Your task to perform on an android device: Go to Google maps Image 0: 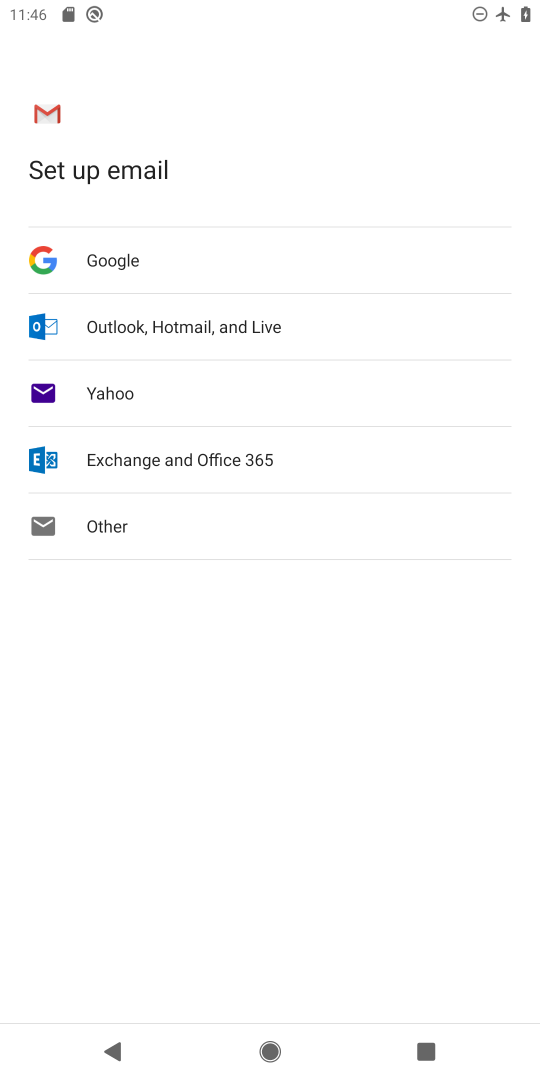
Step 0: press home button
Your task to perform on an android device: Go to Google maps Image 1: 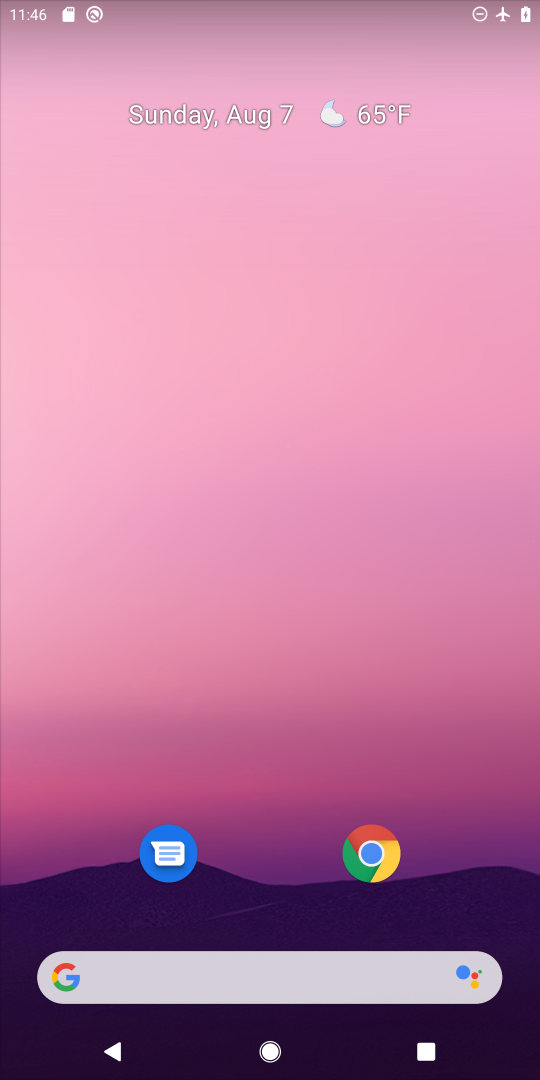
Step 1: drag from (302, 930) to (273, 136)
Your task to perform on an android device: Go to Google maps Image 2: 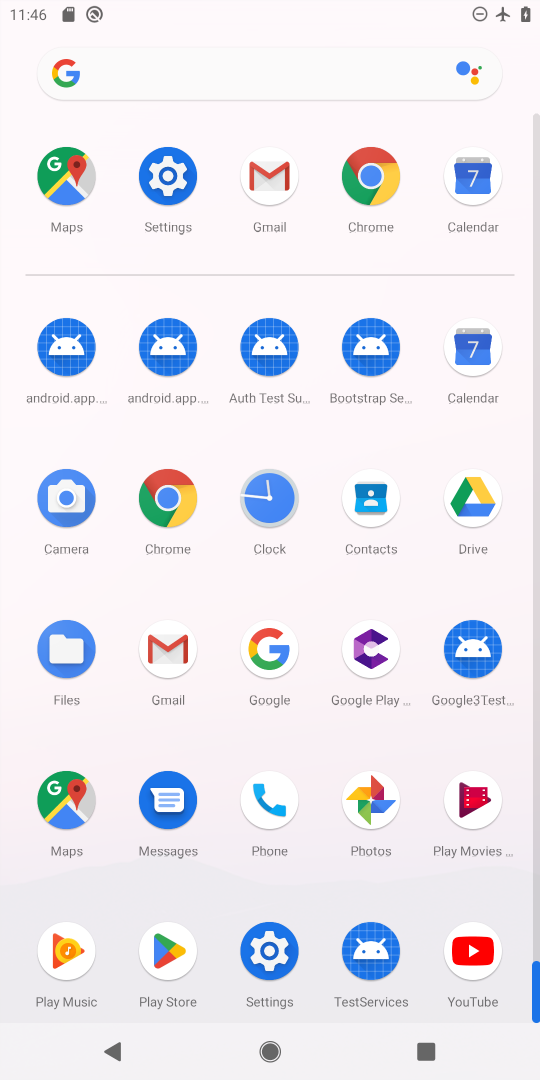
Step 2: click (78, 165)
Your task to perform on an android device: Go to Google maps Image 3: 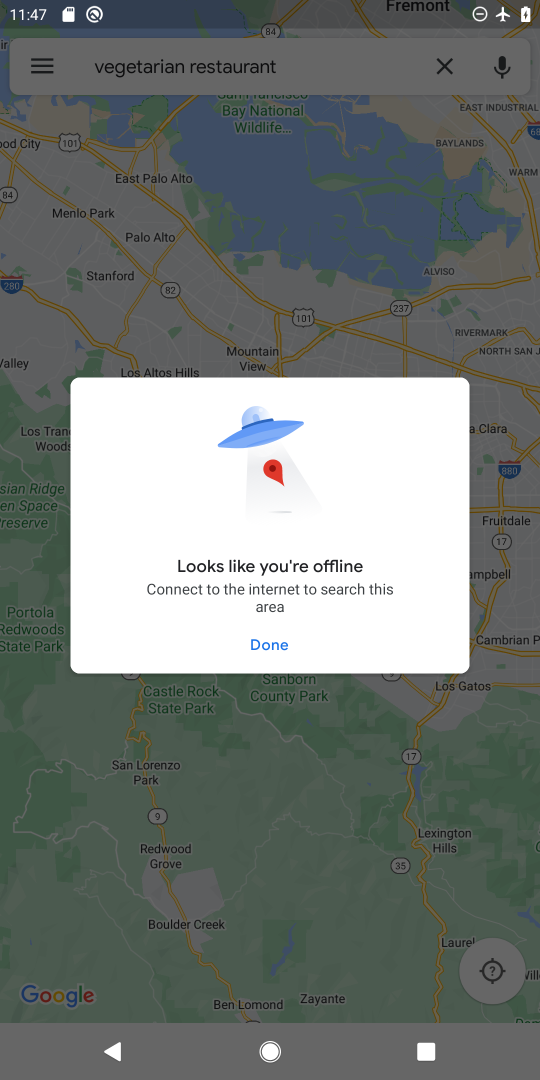
Step 3: task complete